Your task to perform on an android device: turn off airplane mode Image 0: 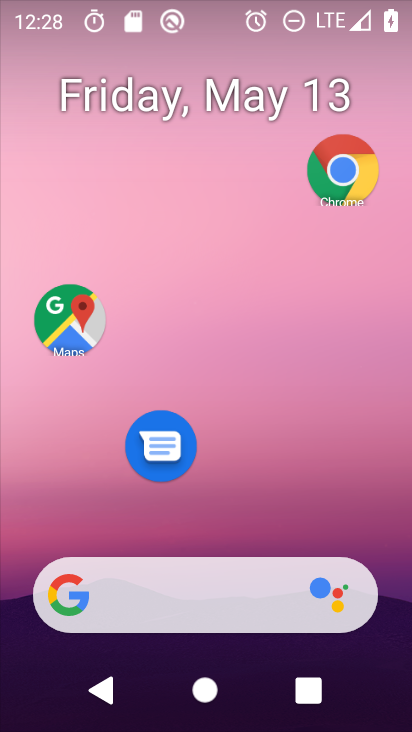
Step 0: drag from (297, 563) to (211, 62)
Your task to perform on an android device: turn off airplane mode Image 1: 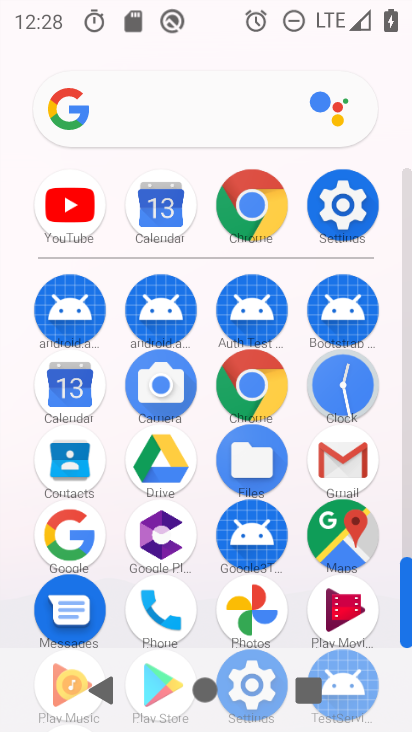
Step 1: click (351, 213)
Your task to perform on an android device: turn off airplane mode Image 2: 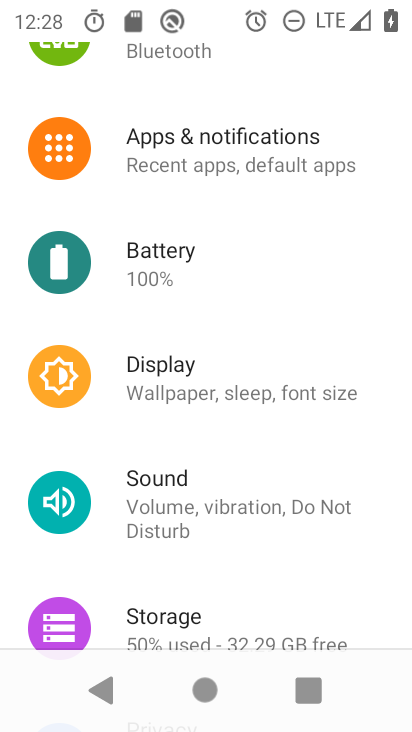
Step 2: drag from (298, 156) to (295, 653)
Your task to perform on an android device: turn off airplane mode Image 3: 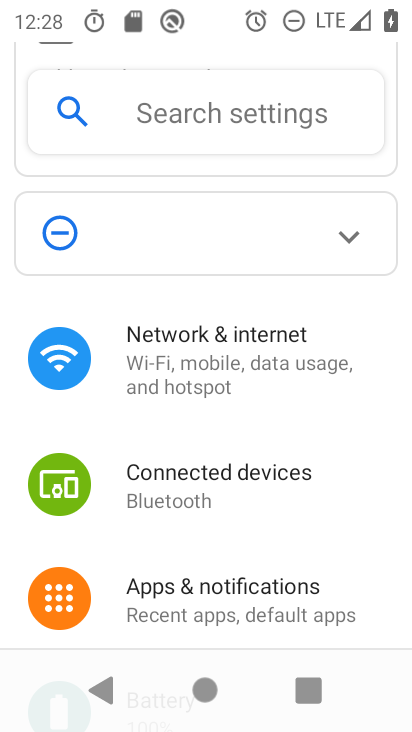
Step 3: click (246, 352)
Your task to perform on an android device: turn off airplane mode Image 4: 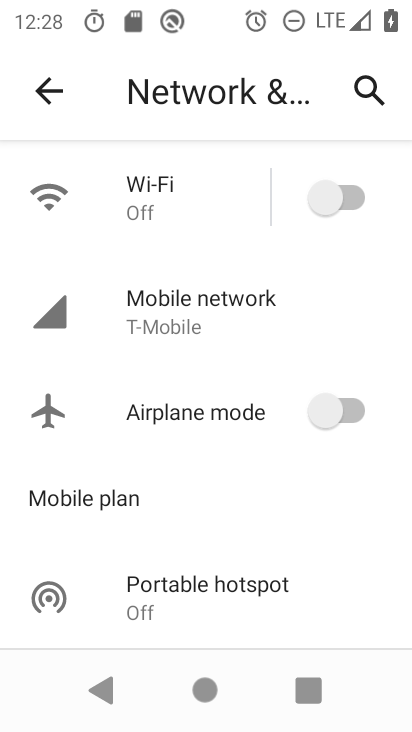
Step 4: task complete